Your task to perform on an android device: add a contact in the contacts app Image 0: 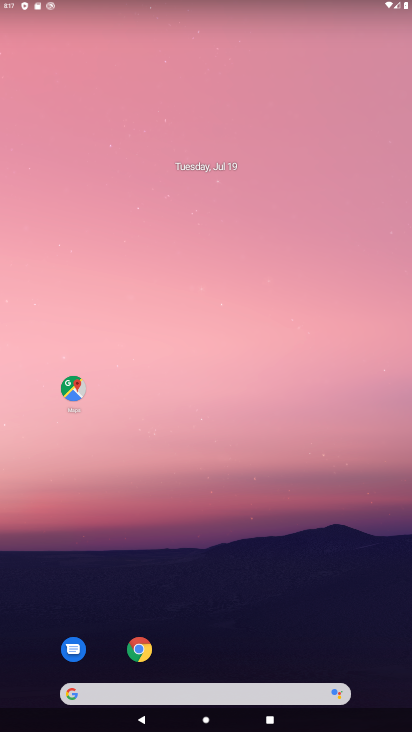
Step 0: drag from (210, 669) to (292, 111)
Your task to perform on an android device: add a contact in the contacts app Image 1: 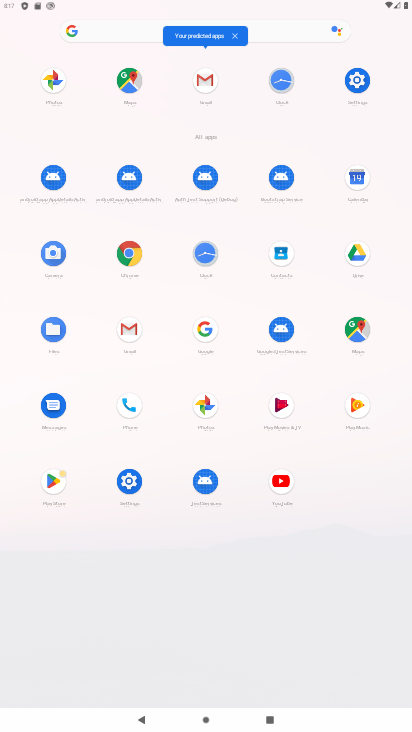
Step 1: click (279, 255)
Your task to perform on an android device: add a contact in the contacts app Image 2: 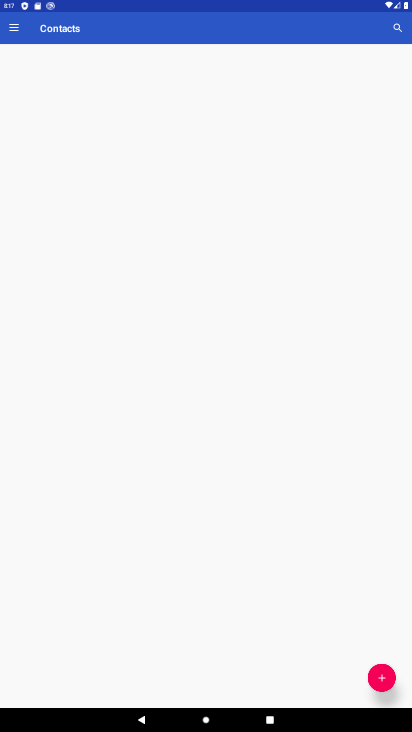
Step 2: click (385, 681)
Your task to perform on an android device: add a contact in the contacts app Image 3: 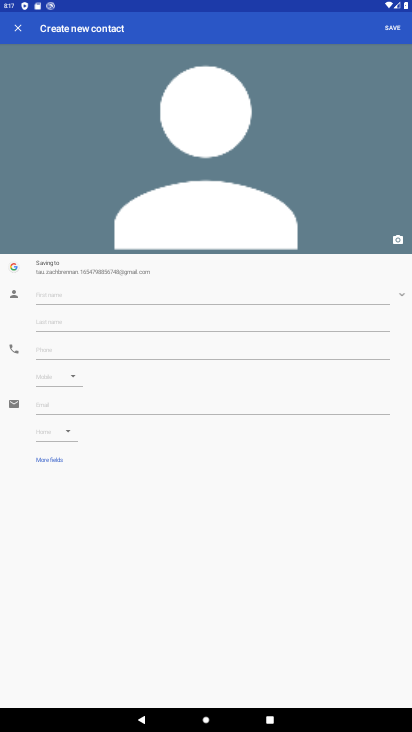
Step 3: click (146, 292)
Your task to perform on an android device: add a contact in the contacts app Image 4: 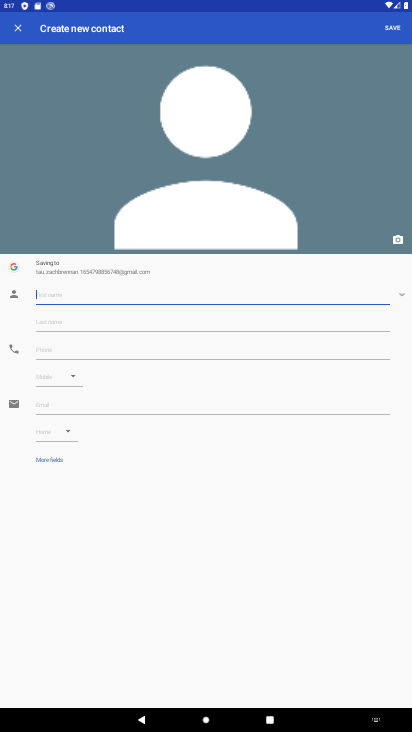
Step 4: type "hchncg"
Your task to perform on an android device: add a contact in the contacts app Image 5: 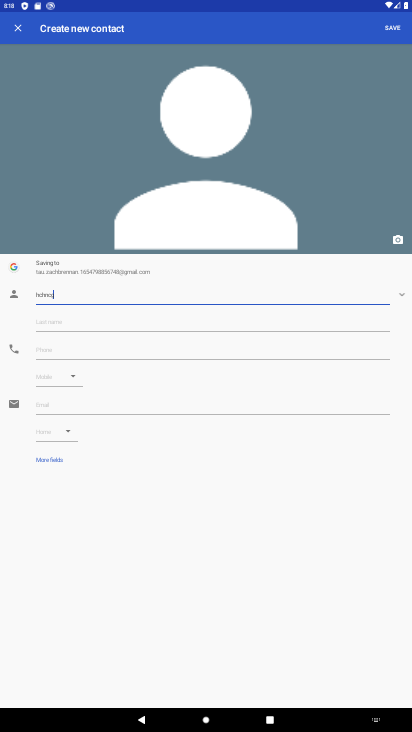
Step 5: click (120, 353)
Your task to perform on an android device: add a contact in the contacts app Image 6: 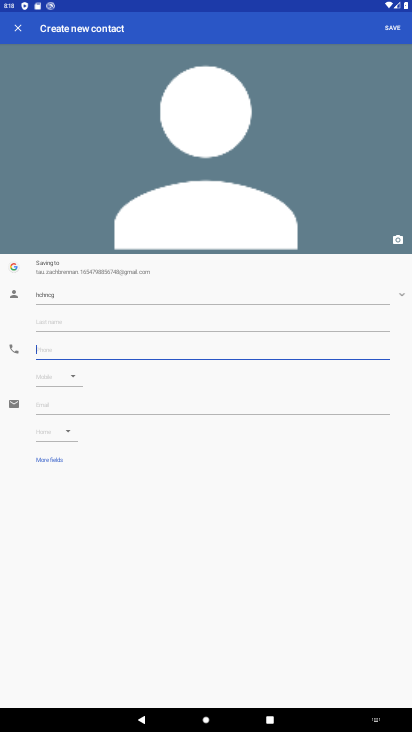
Step 6: type "8687575878"
Your task to perform on an android device: add a contact in the contacts app Image 7: 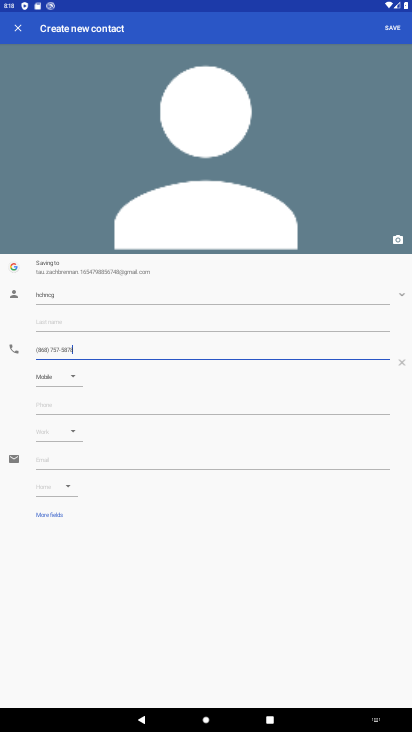
Step 7: click (394, 24)
Your task to perform on an android device: add a contact in the contacts app Image 8: 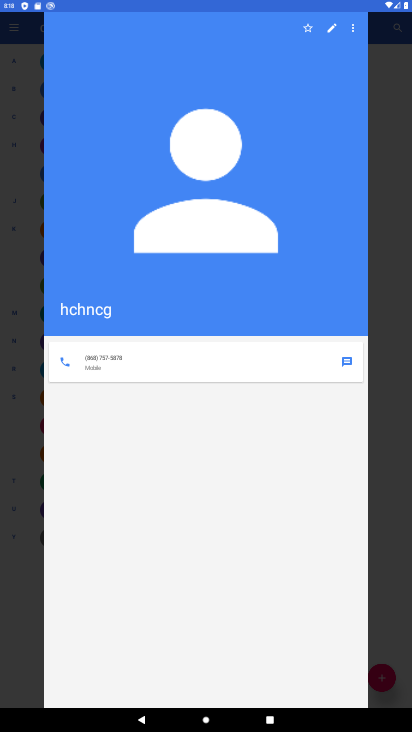
Step 8: task complete